Your task to perform on an android device: Clear the shopping cart on target. Add "macbook air" to the cart on target Image 0: 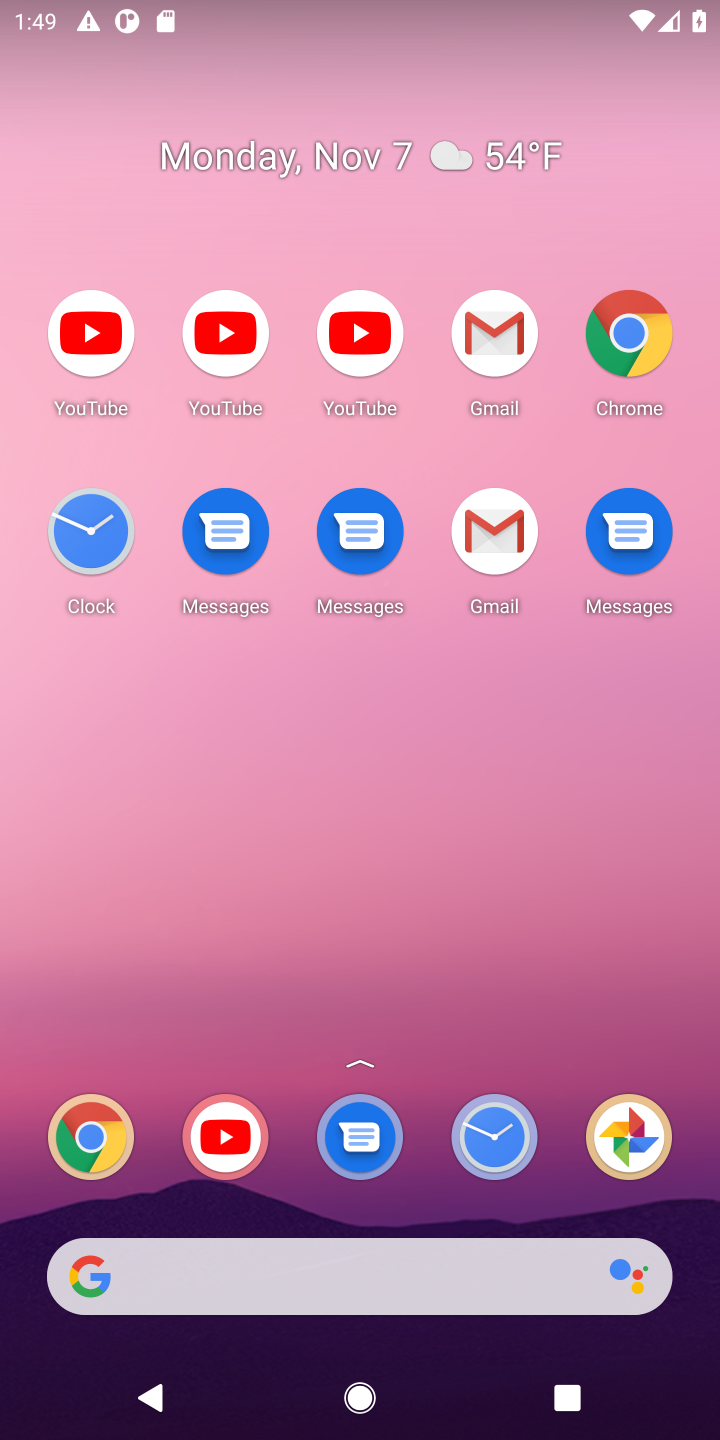
Step 0: drag from (421, 1201) to (437, 255)
Your task to perform on an android device: Clear the shopping cart on target. Add "macbook air" to the cart on target Image 1: 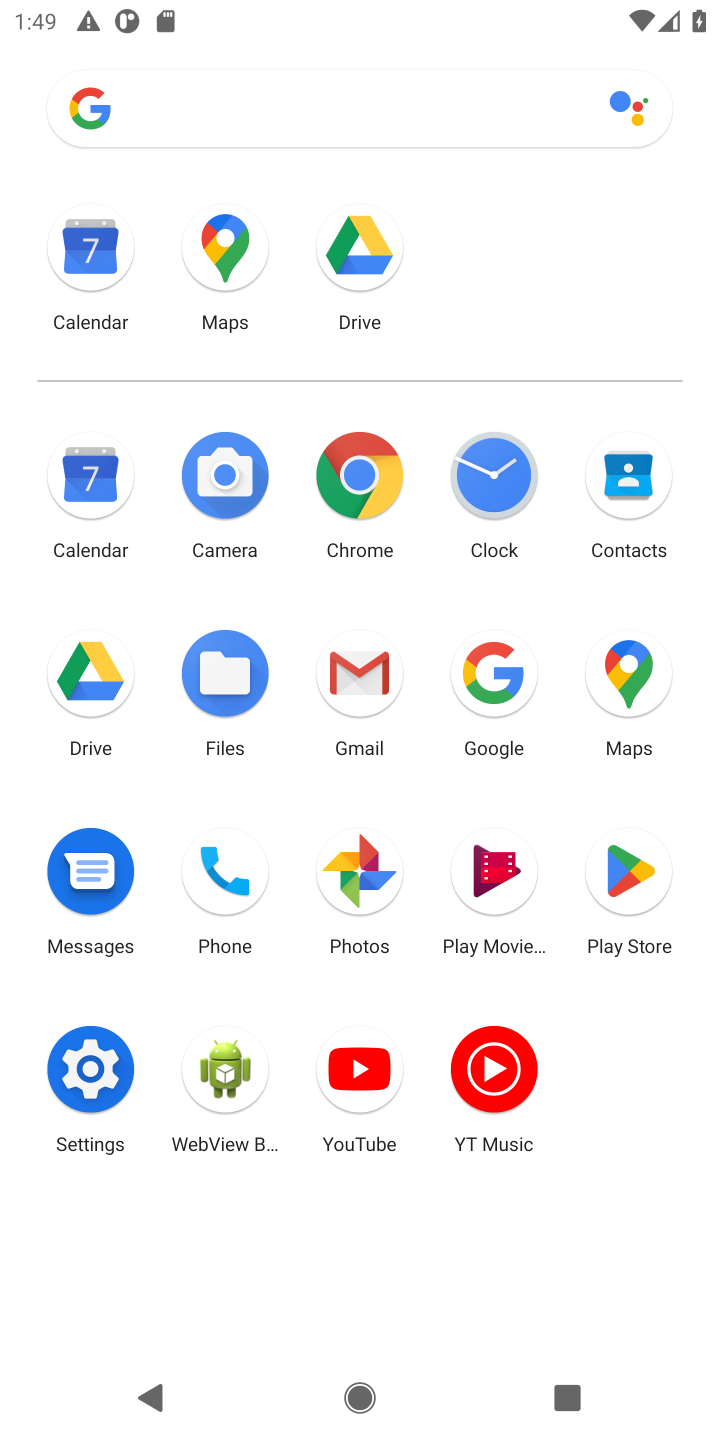
Step 1: click (366, 470)
Your task to perform on an android device: Clear the shopping cart on target. Add "macbook air" to the cart on target Image 2: 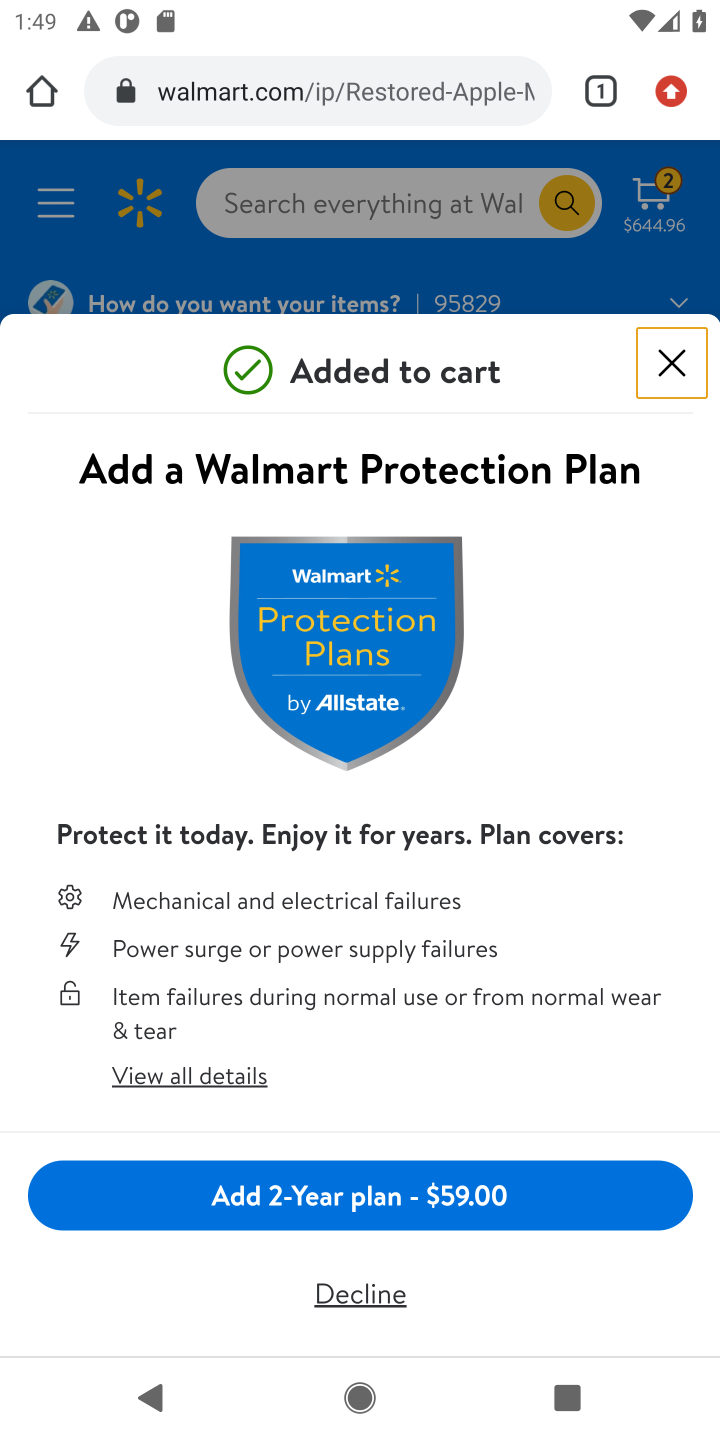
Step 2: click (461, 81)
Your task to perform on an android device: Clear the shopping cart on target. Add "macbook air" to the cart on target Image 3: 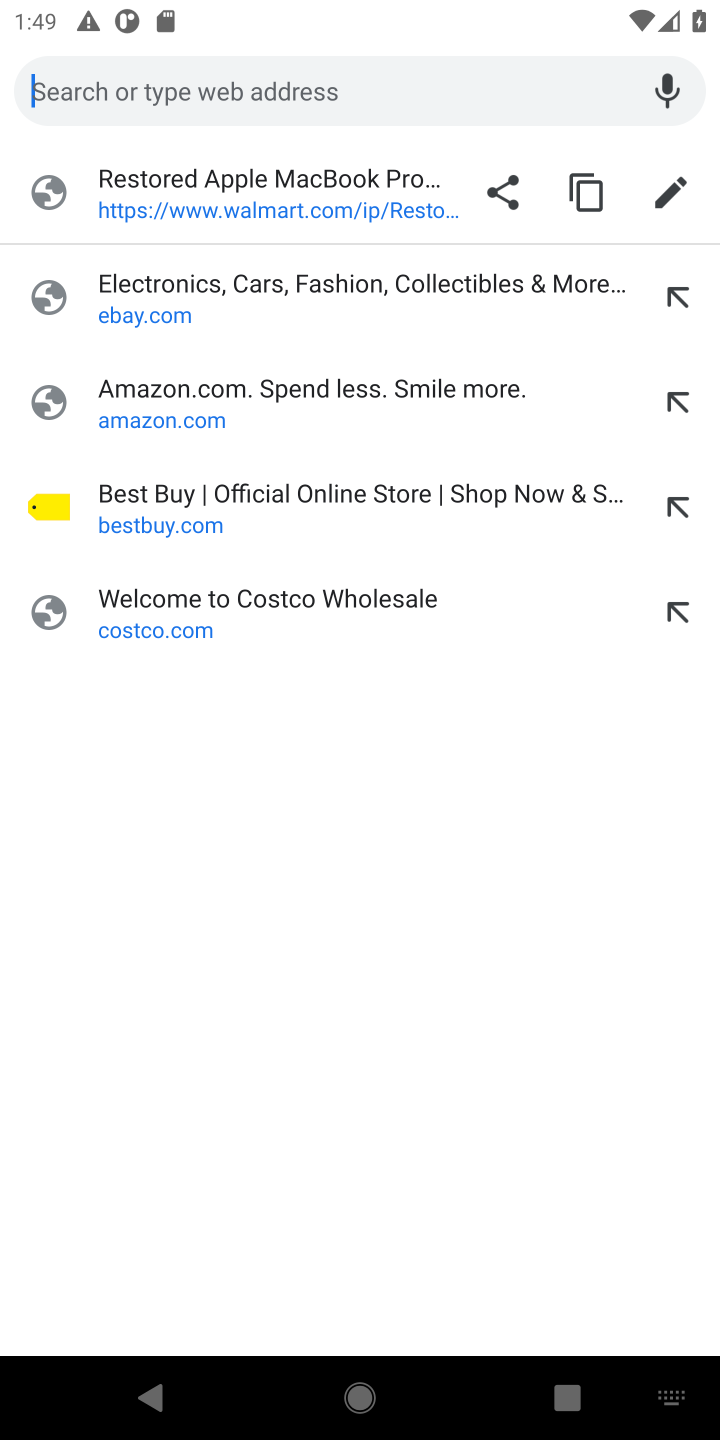
Step 3: type "target.com"
Your task to perform on an android device: Clear the shopping cart on target. Add "macbook air" to the cart on target Image 4: 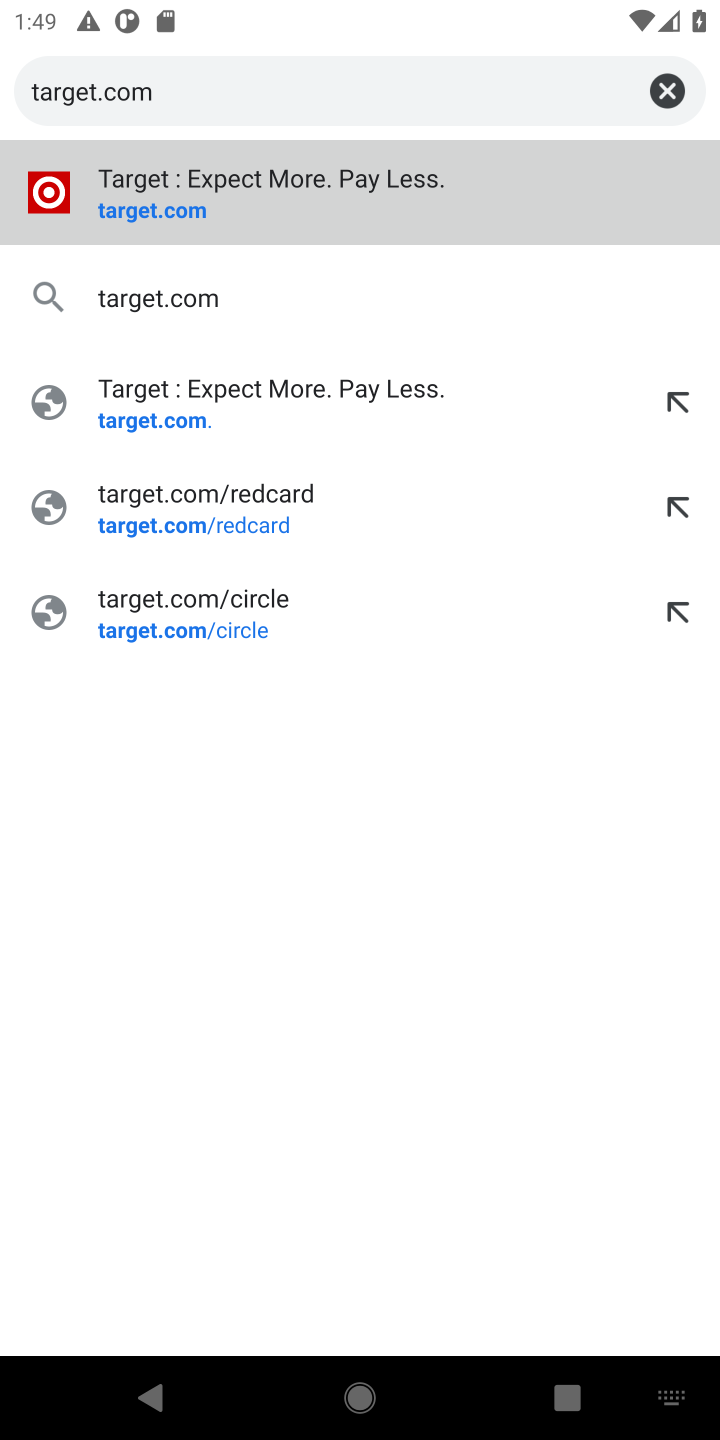
Step 4: press enter
Your task to perform on an android device: Clear the shopping cart on target. Add "macbook air" to the cart on target Image 5: 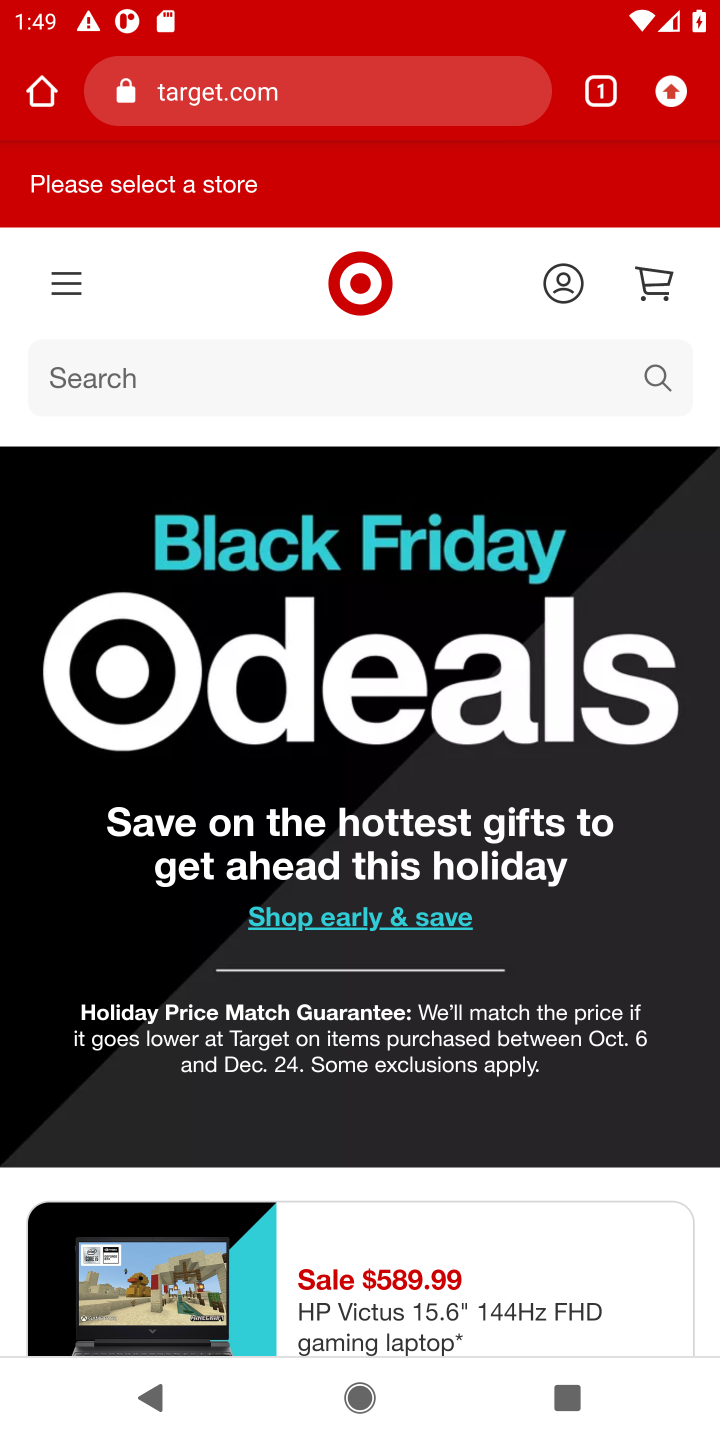
Step 5: click (671, 280)
Your task to perform on an android device: Clear the shopping cart on target. Add "macbook air" to the cart on target Image 6: 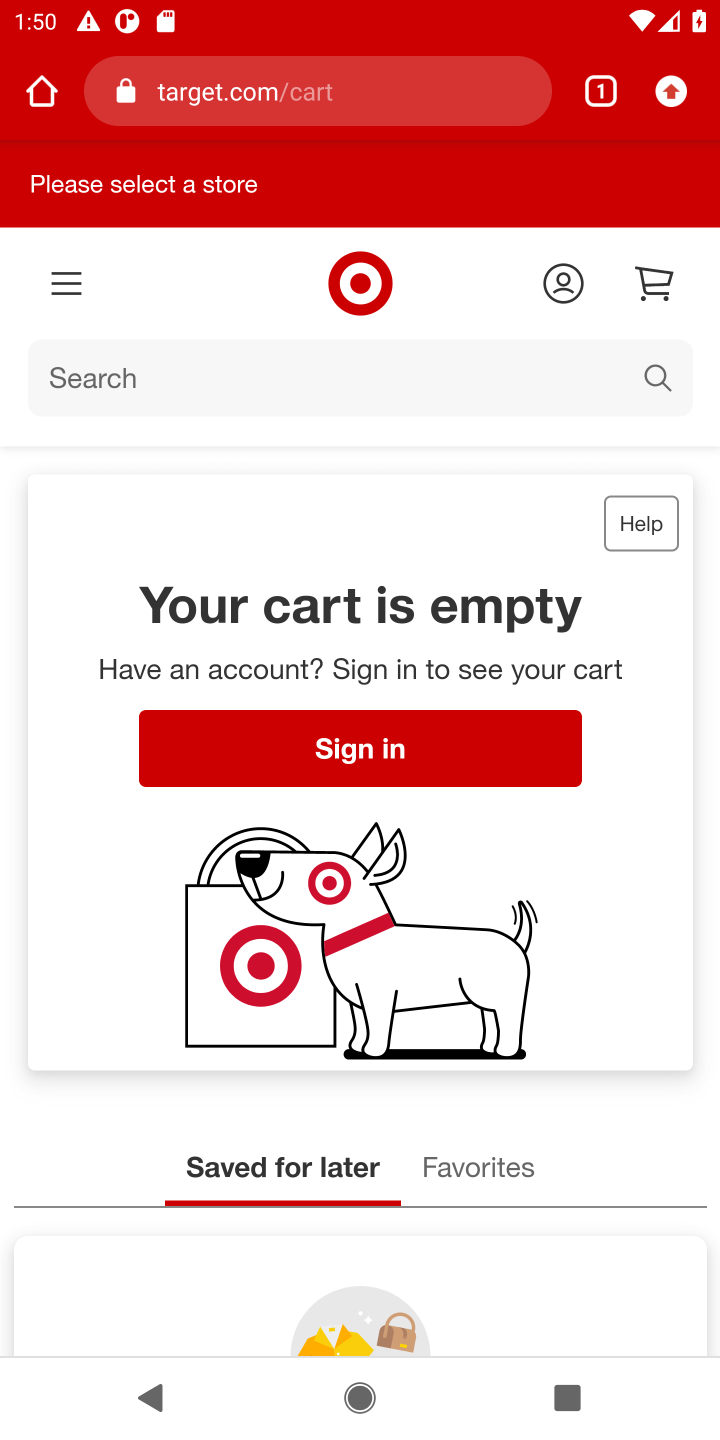
Step 6: click (547, 398)
Your task to perform on an android device: Clear the shopping cart on target. Add "macbook air" to the cart on target Image 7: 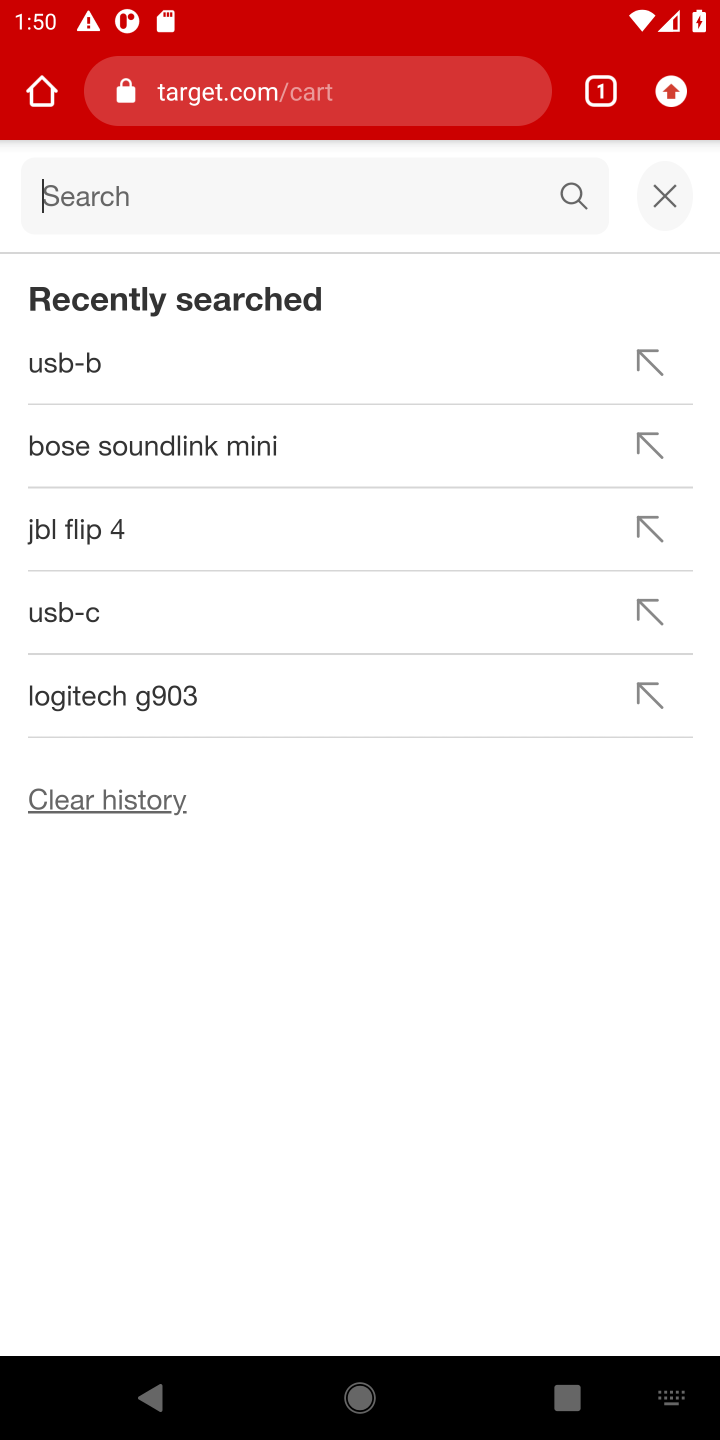
Step 7: type "macbook air"
Your task to perform on an android device: Clear the shopping cart on target. Add "macbook air" to the cart on target Image 8: 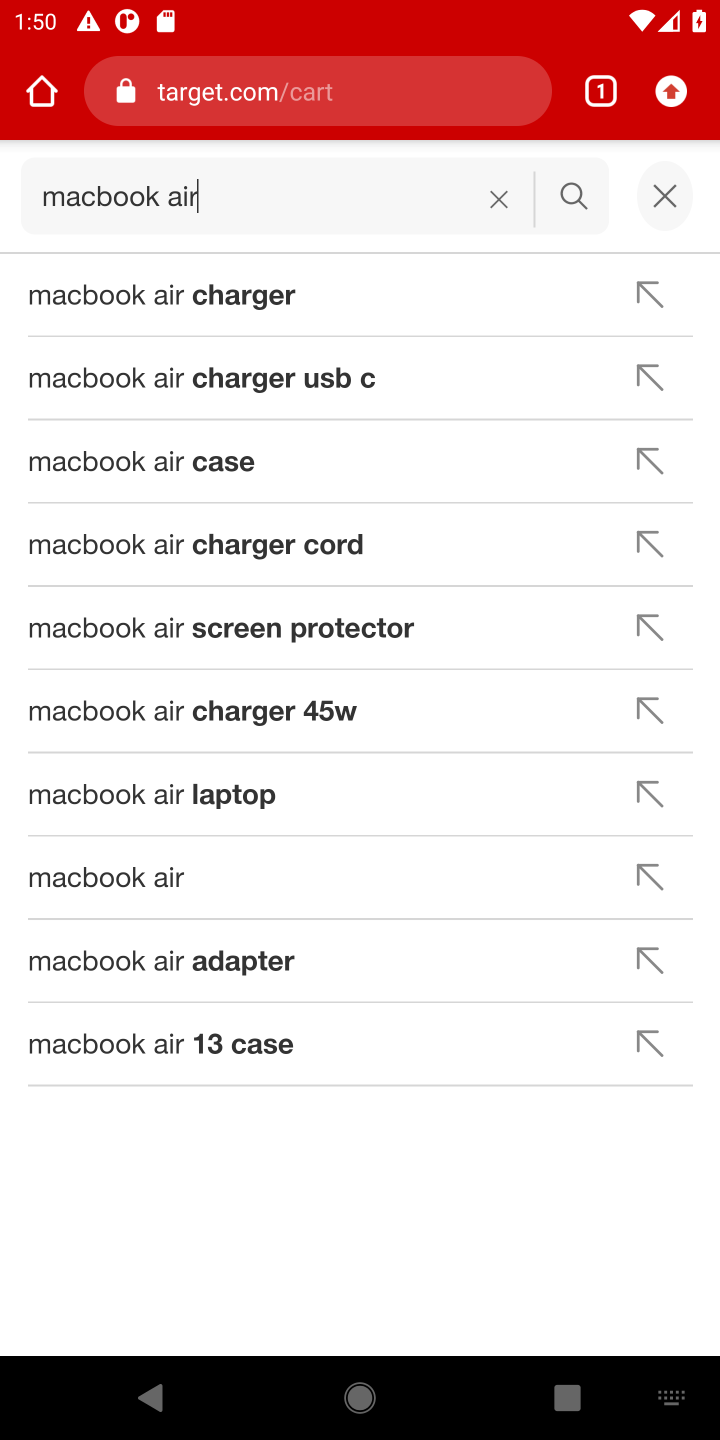
Step 8: press enter
Your task to perform on an android device: Clear the shopping cart on target. Add "macbook air" to the cart on target Image 9: 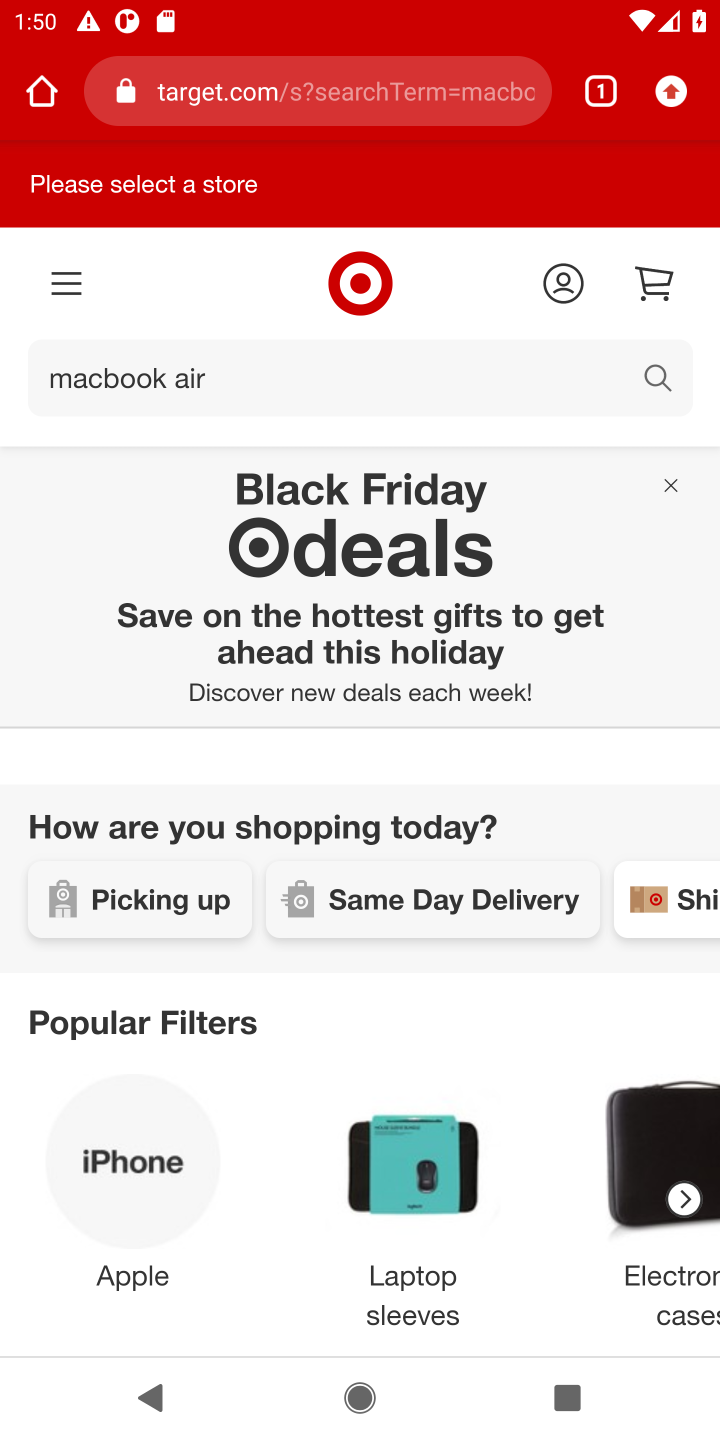
Step 9: task complete